Your task to perform on an android device: open chrome privacy settings Image 0: 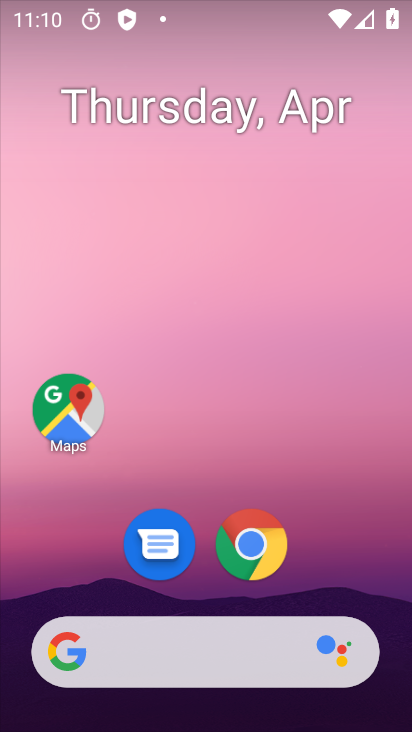
Step 0: click (245, 549)
Your task to perform on an android device: open chrome privacy settings Image 1: 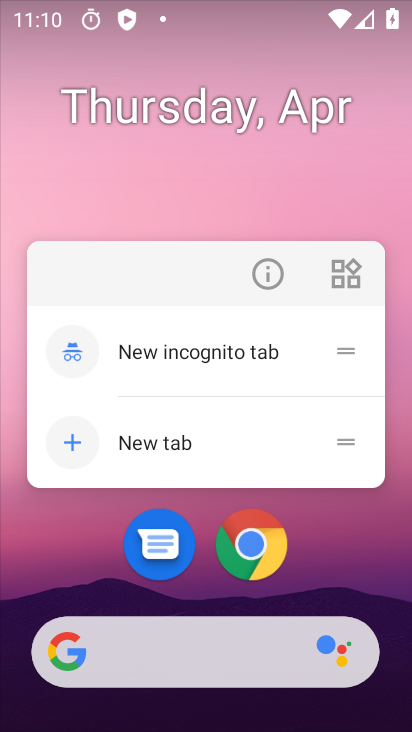
Step 1: click (262, 269)
Your task to perform on an android device: open chrome privacy settings Image 2: 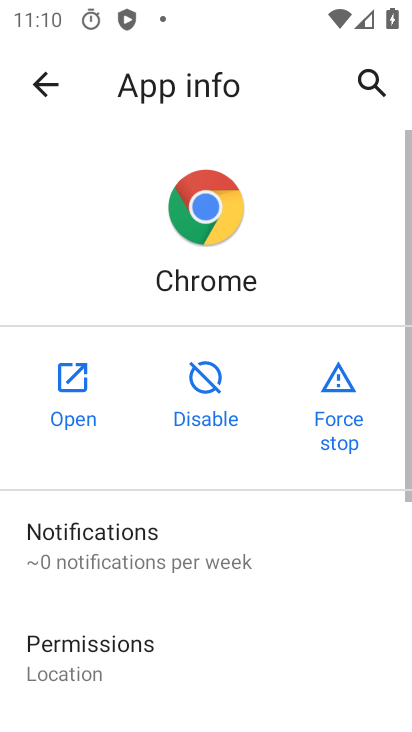
Step 2: click (63, 370)
Your task to perform on an android device: open chrome privacy settings Image 3: 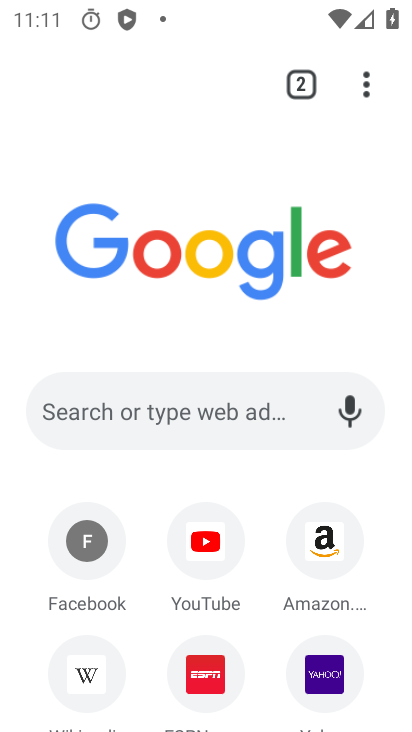
Step 3: drag from (247, 334) to (353, 77)
Your task to perform on an android device: open chrome privacy settings Image 4: 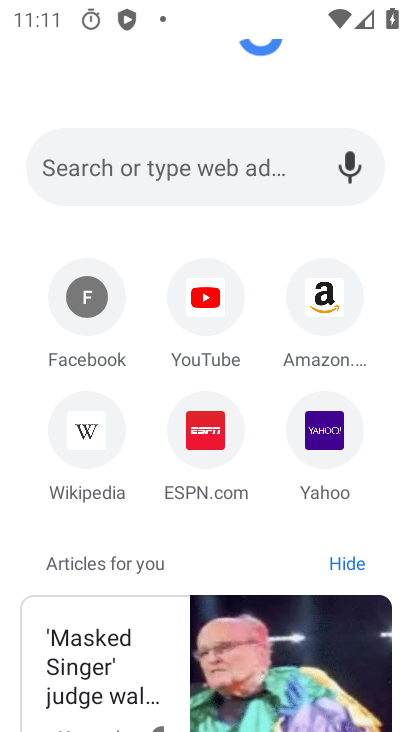
Step 4: drag from (339, 86) to (245, 334)
Your task to perform on an android device: open chrome privacy settings Image 5: 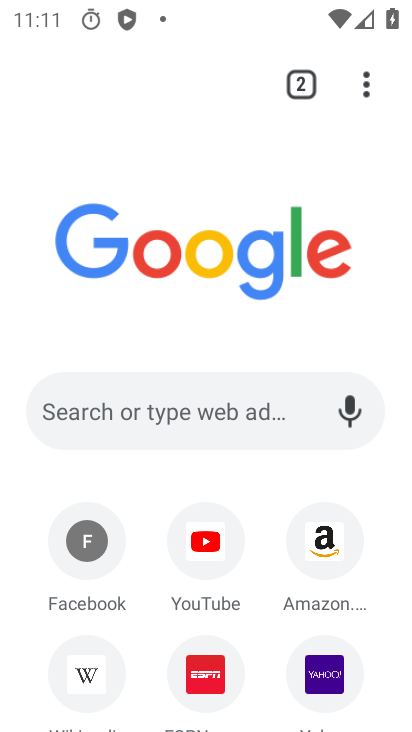
Step 5: drag from (38, 214) to (29, 466)
Your task to perform on an android device: open chrome privacy settings Image 6: 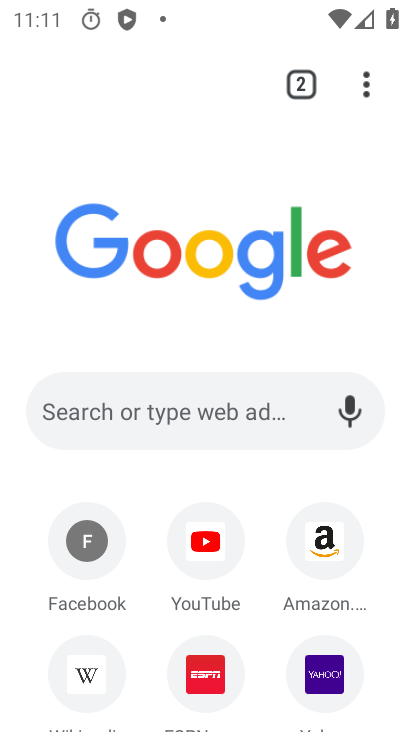
Step 6: click (364, 82)
Your task to perform on an android device: open chrome privacy settings Image 7: 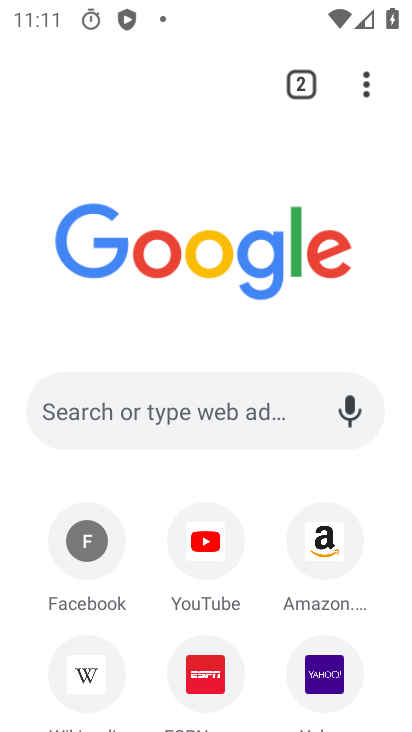
Step 7: drag from (406, 108) to (350, 76)
Your task to perform on an android device: open chrome privacy settings Image 8: 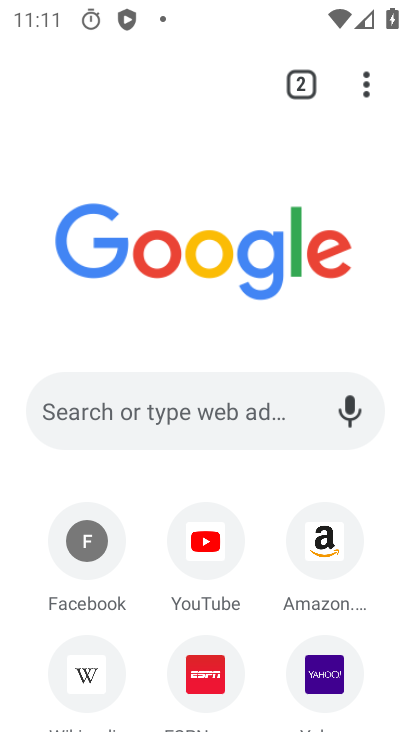
Step 8: click (355, 75)
Your task to perform on an android device: open chrome privacy settings Image 9: 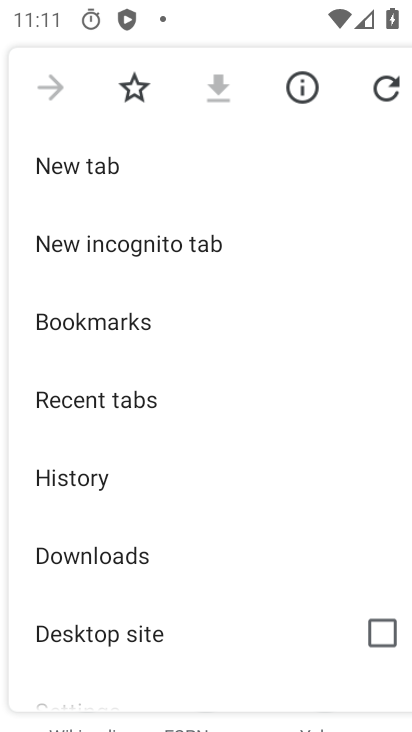
Step 9: drag from (219, 584) to (296, 202)
Your task to perform on an android device: open chrome privacy settings Image 10: 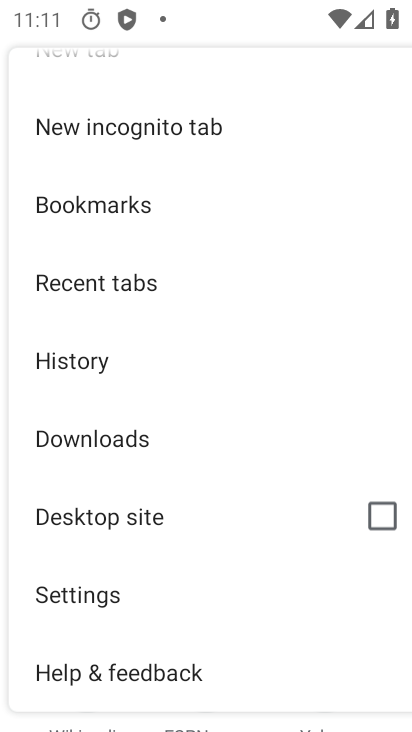
Step 10: click (94, 601)
Your task to perform on an android device: open chrome privacy settings Image 11: 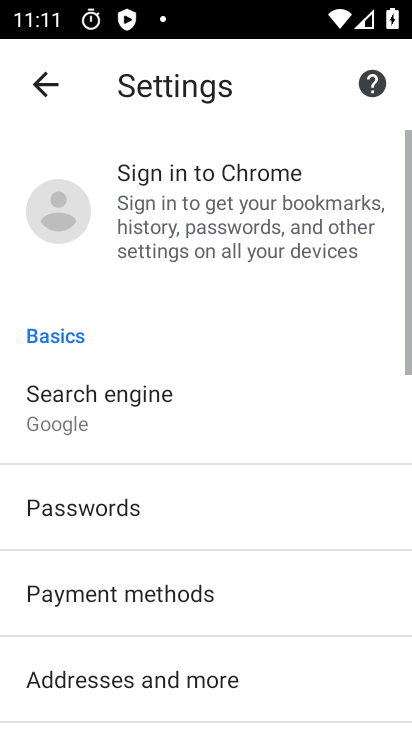
Step 11: drag from (126, 614) to (181, 278)
Your task to perform on an android device: open chrome privacy settings Image 12: 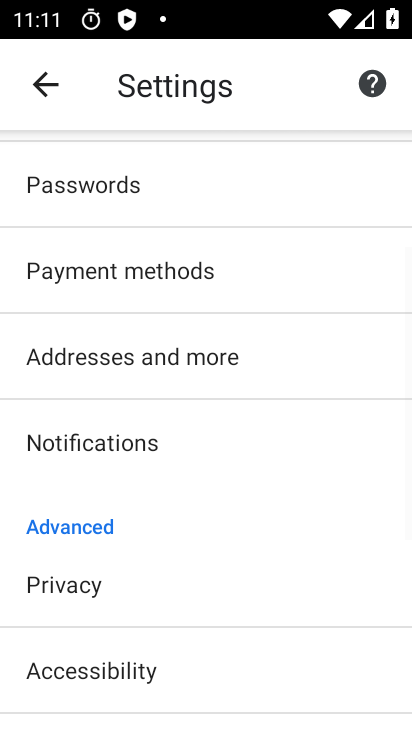
Step 12: drag from (104, 644) to (175, 383)
Your task to perform on an android device: open chrome privacy settings Image 13: 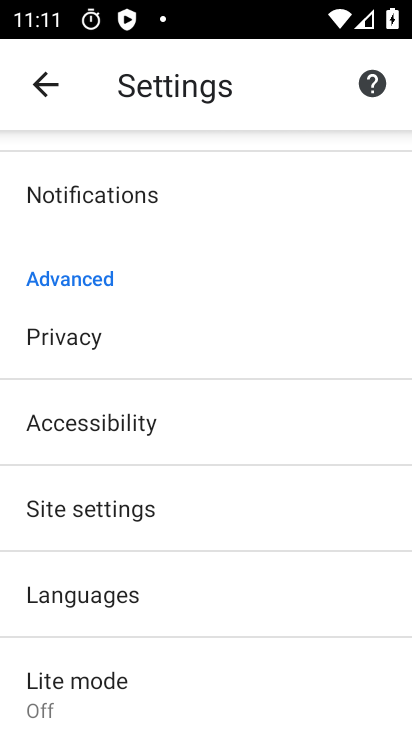
Step 13: click (103, 325)
Your task to perform on an android device: open chrome privacy settings Image 14: 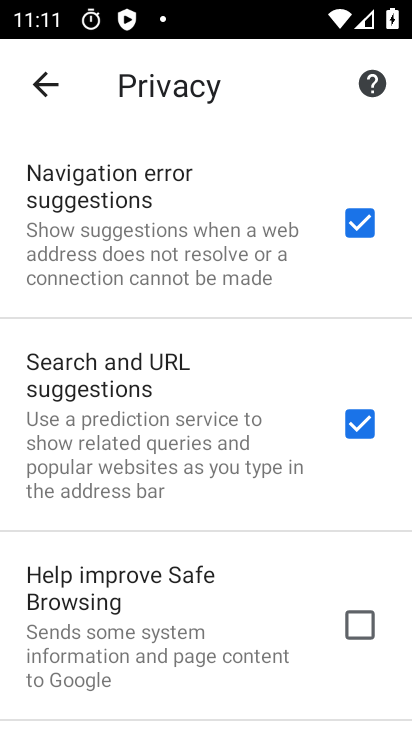
Step 14: task complete